Your task to perform on an android device: Is it going to rain today? Image 0: 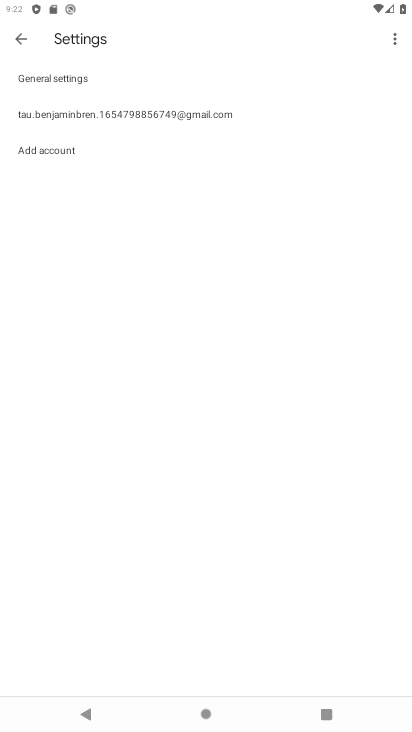
Step 0: press home button
Your task to perform on an android device: Is it going to rain today? Image 1: 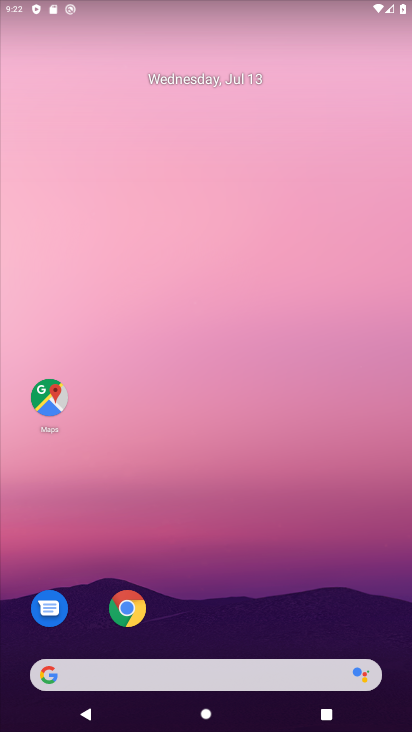
Step 1: click (113, 664)
Your task to perform on an android device: Is it going to rain today? Image 2: 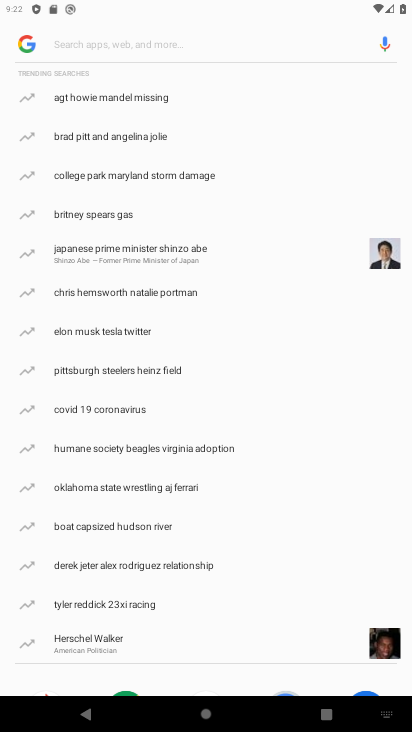
Step 2: type "Is it going to rain today?"
Your task to perform on an android device: Is it going to rain today? Image 3: 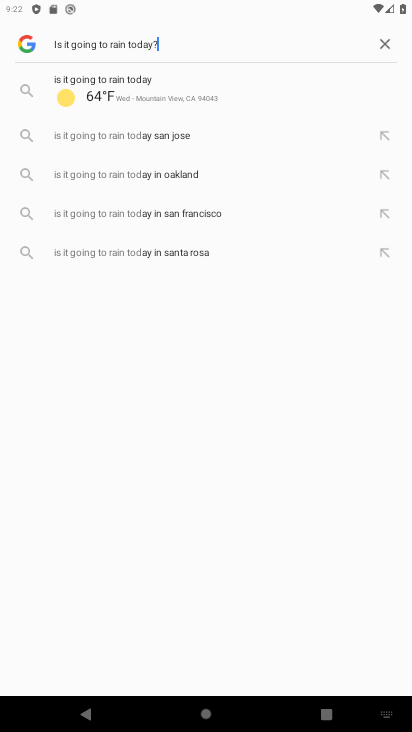
Step 3: type ""
Your task to perform on an android device: Is it going to rain today? Image 4: 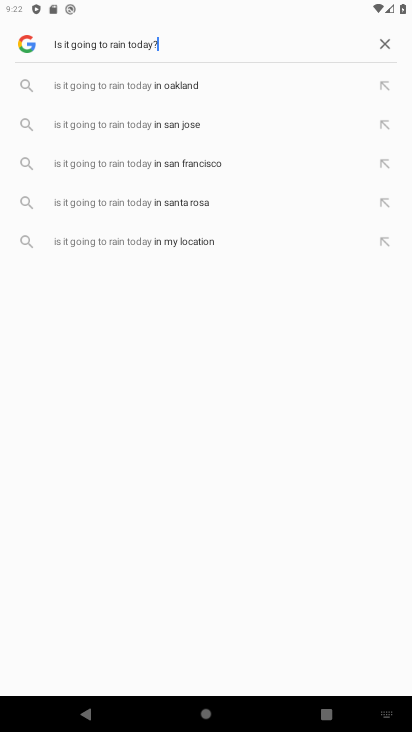
Step 4: type ""
Your task to perform on an android device: Is it going to rain today? Image 5: 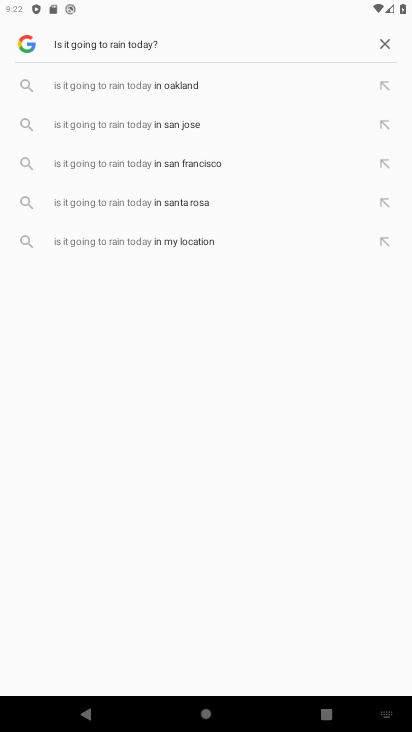
Step 5: type ""
Your task to perform on an android device: Is it going to rain today? Image 6: 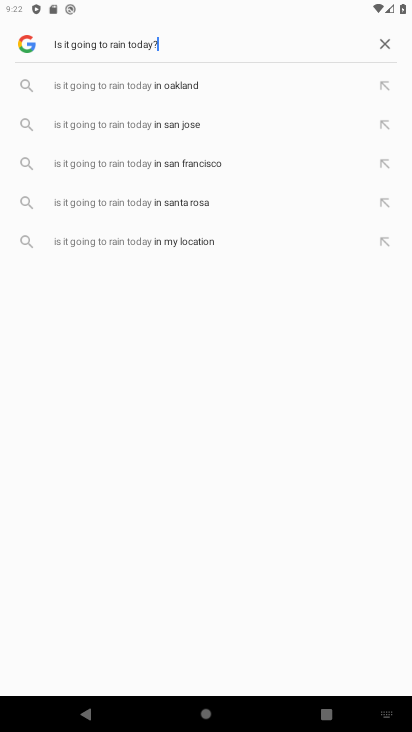
Step 6: type ""
Your task to perform on an android device: Is it going to rain today? Image 7: 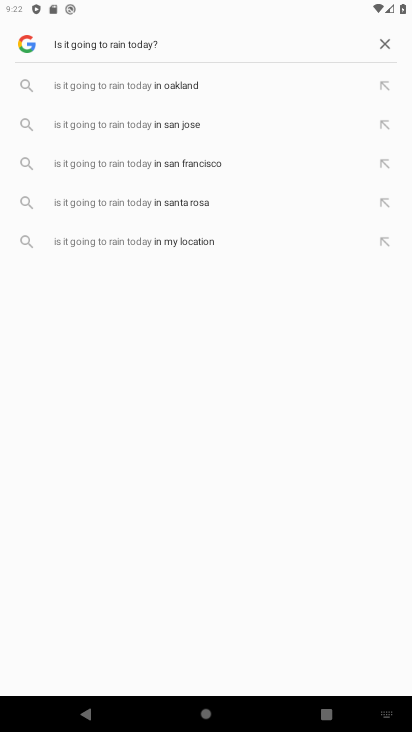
Step 7: task complete